Your task to perform on an android device: move an email to a new category in the gmail app Image 0: 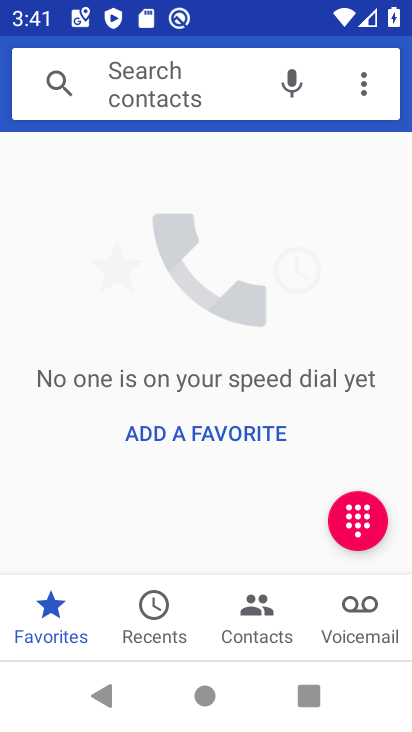
Step 0: press home button
Your task to perform on an android device: move an email to a new category in the gmail app Image 1: 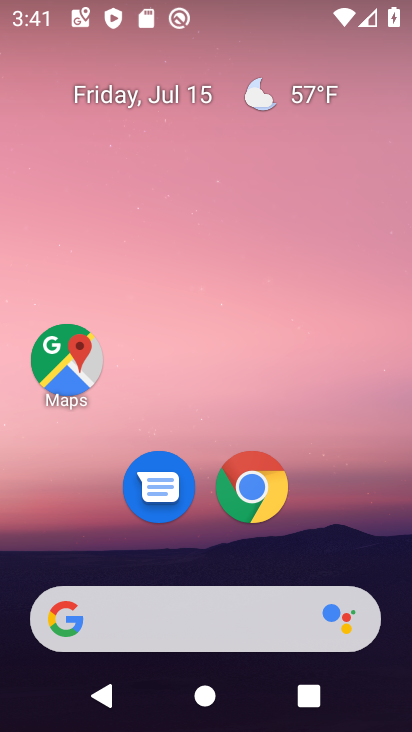
Step 1: drag from (216, 612) to (189, 47)
Your task to perform on an android device: move an email to a new category in the gmail app Image 2: 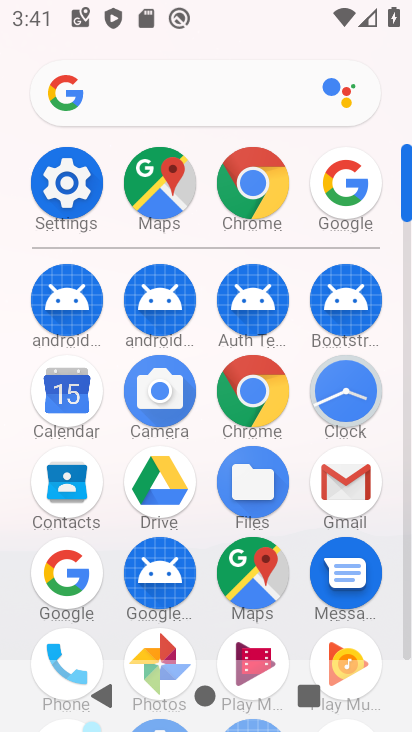
Step 2: click (340, 483)
Your task to perform on an android device: move an email to a new category in the gmail app Image 3: 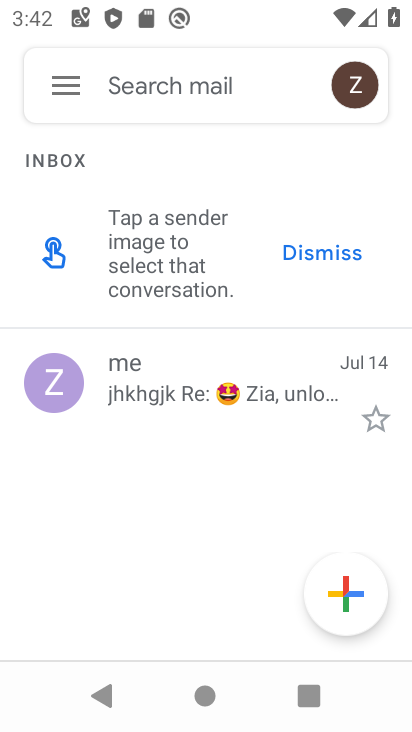
Step 3: click (155, 383)
Your task to perform on an android device: move an email to a new category in the gmail app Image 4: 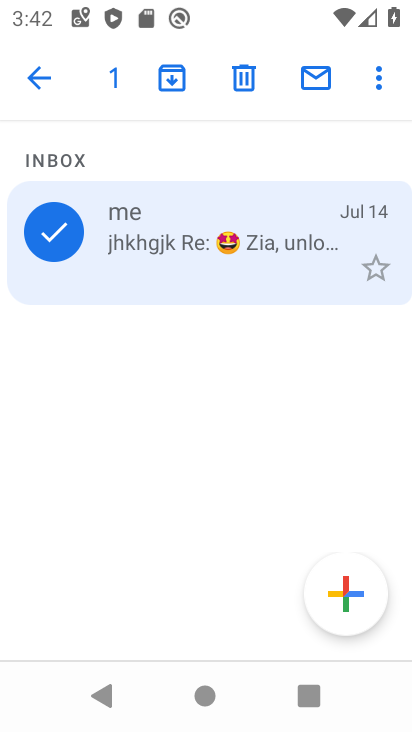
Step 4: click (23, 83)
Your task to perform on an android device: move an email to a new category in the gmail app Image 5: 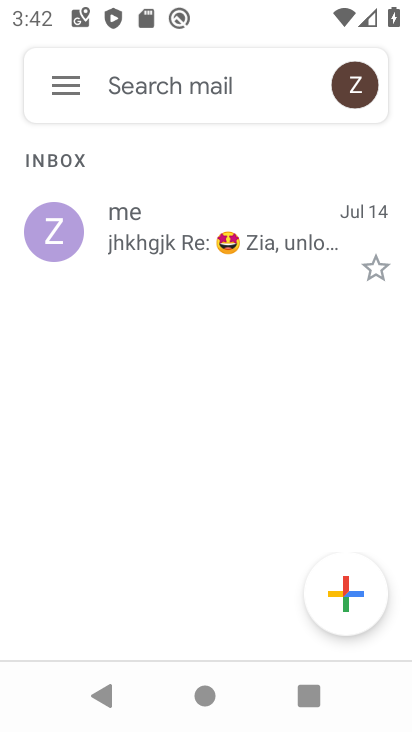
Step 5: click (203, 248)
Your task to perform on an android device: move an email to a new category in the gmail app Image 6: 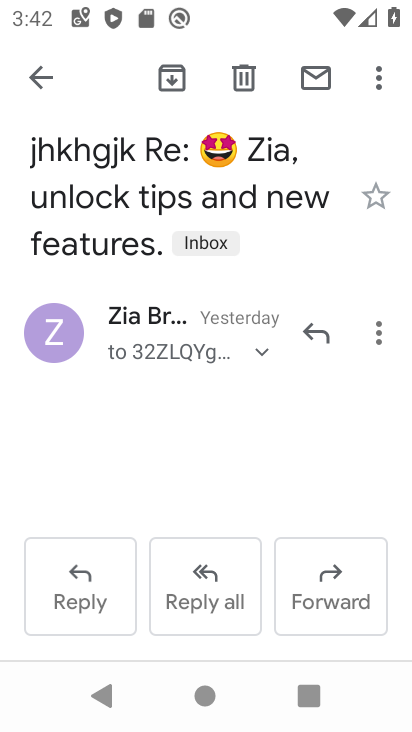
Step 6: click (377, 81)
Your task to perform on an android device: move an email to a new category in the gmail app Image 7: 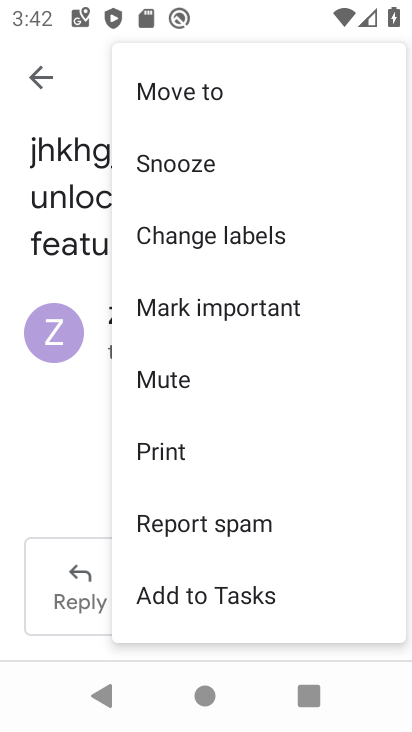
Step 7: click (221, 240)
Your task to perform on an android device: move an email to a new category in the gmail app Image 8: 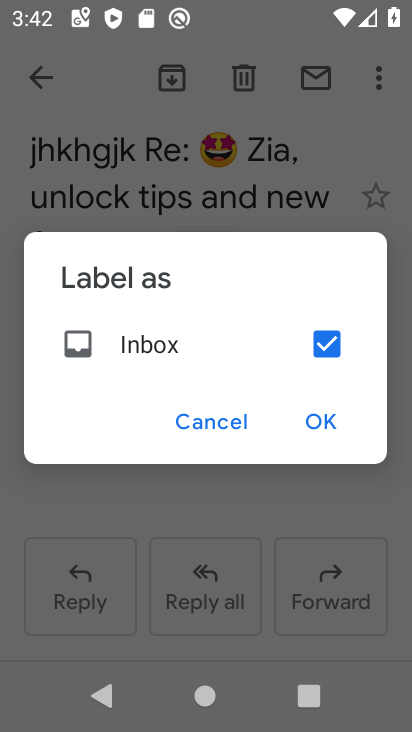
Step 8: click (311, 418)
Your task to perform on an android device: move an email to a new category in the gmail app Image 9: 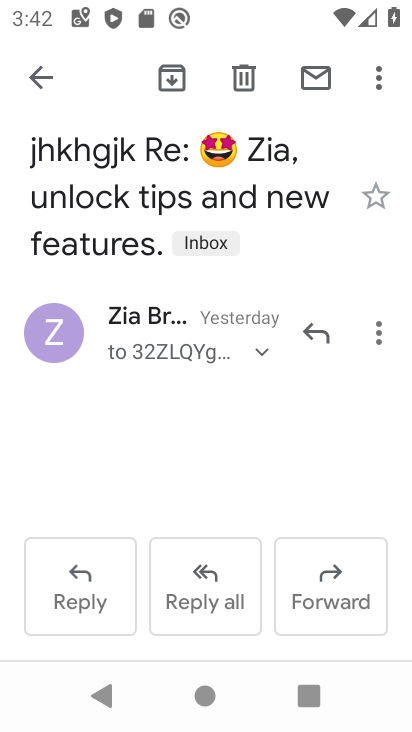
Step 9: task complete